Your task to perform on an android device: Go to CNN.com Image 0: 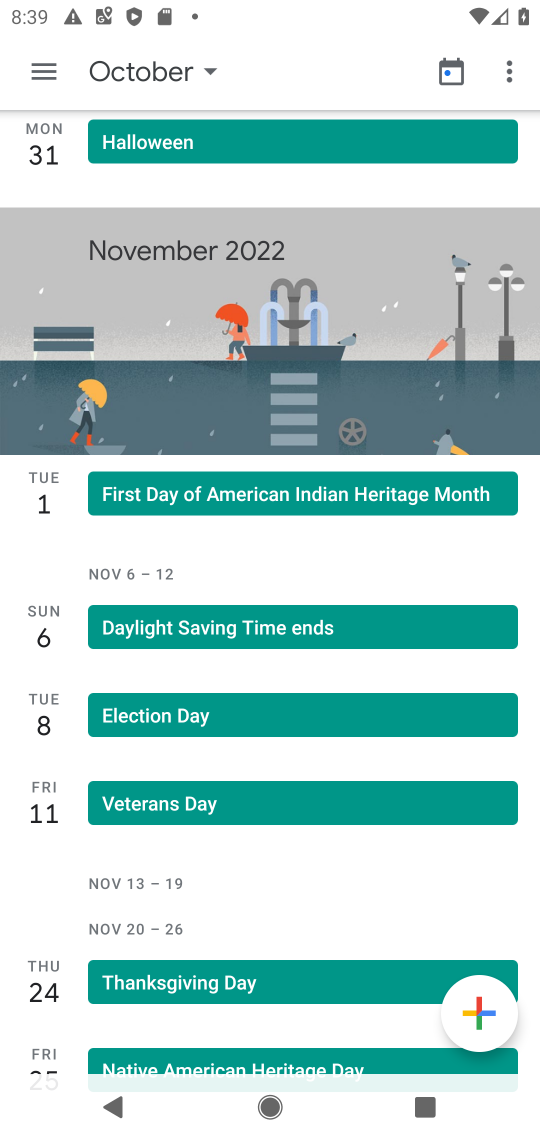
Step 0: press home button
Your task to perform on an android device: Go to CNN.com Image 1: 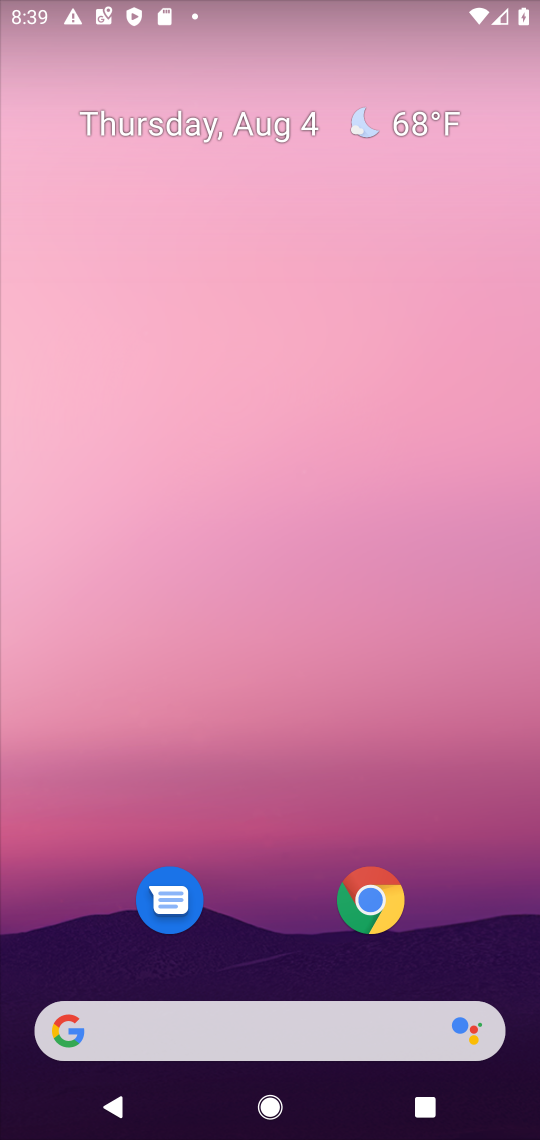
Step 1: click (365, 922)
Your task to perform on an android device: Go to CNN.com Image 2: 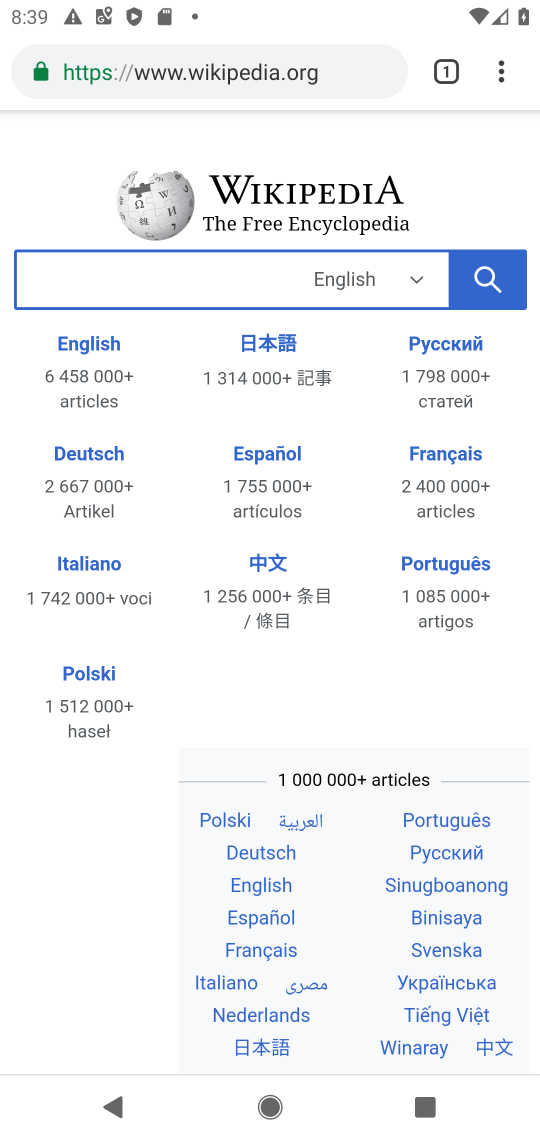
Step 2: click (230, 61)
Your task to perform on an android device: Go to CNN.com Image 3: 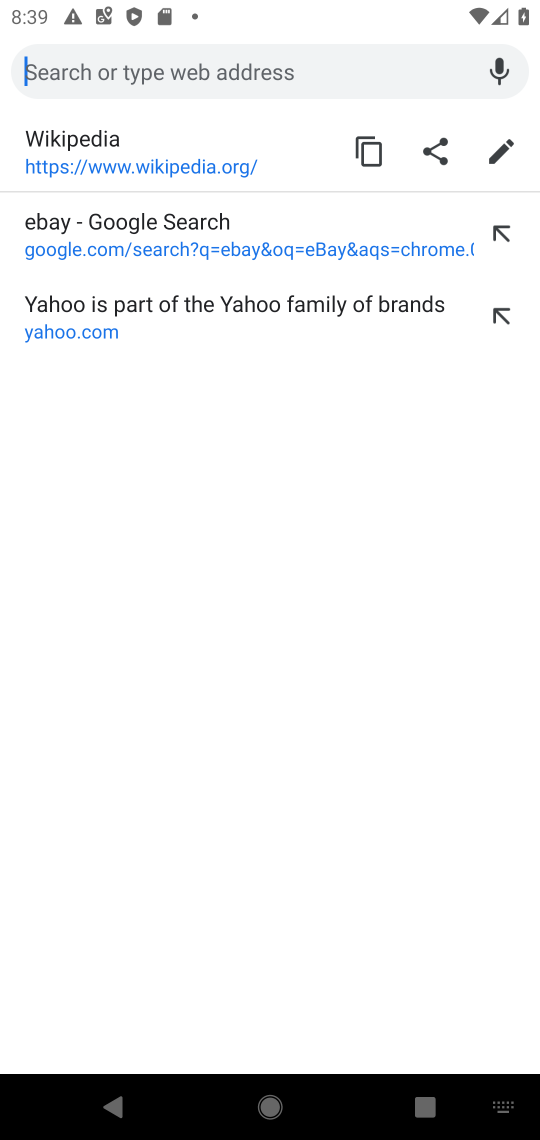
Step 3: type " CNN.com"
Your task to perform on an android device: Go to CNN.com Image 4: 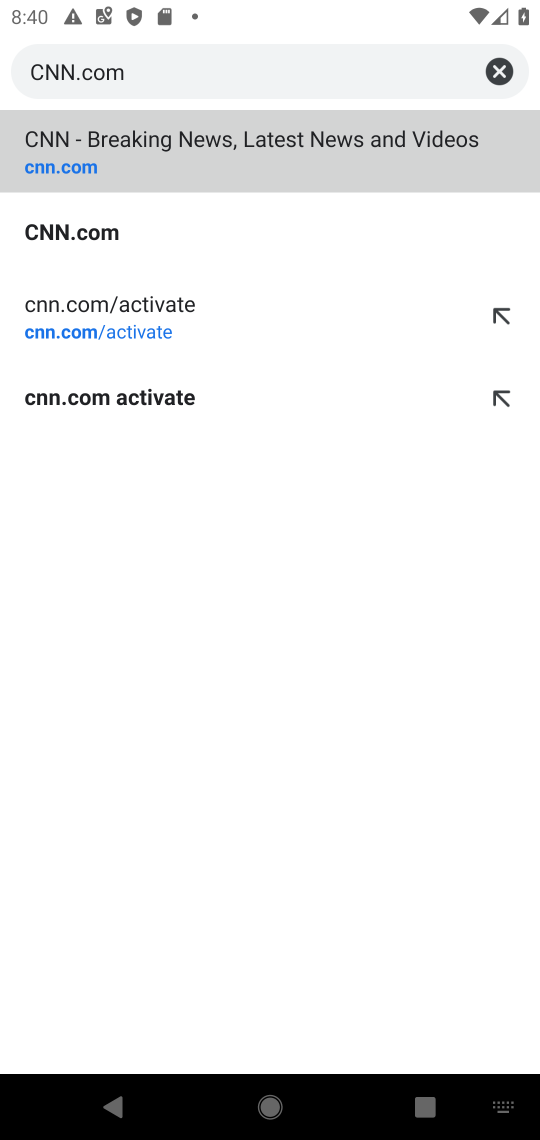
Step 4: click (80, 160)
Your task to perform on an android device: Go to CNN.com Image 5: 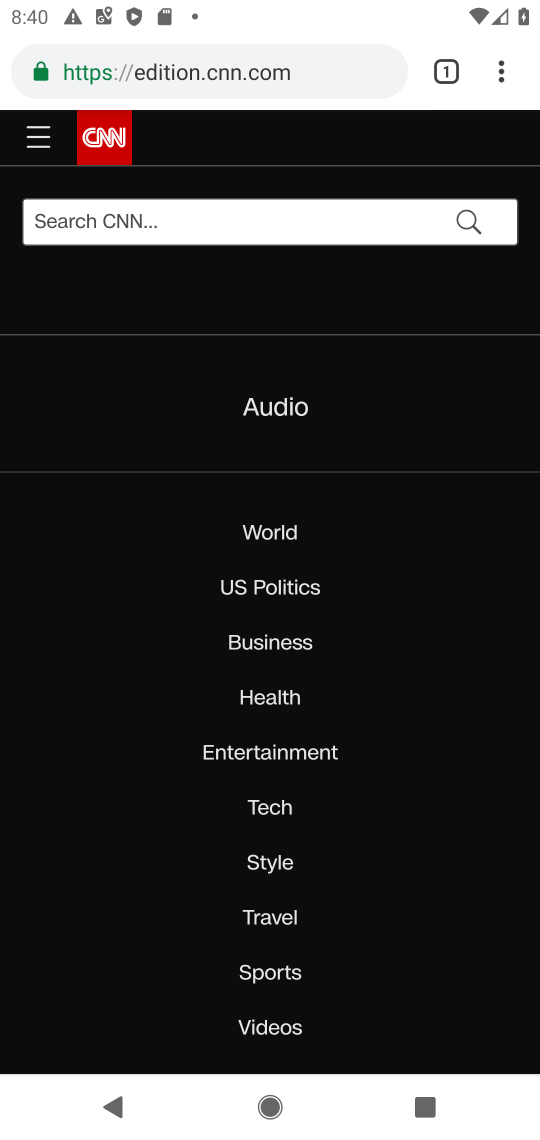
Step 5: task complete